Your task to perform on an android device: delete browsing data in the chrome app Image 0: 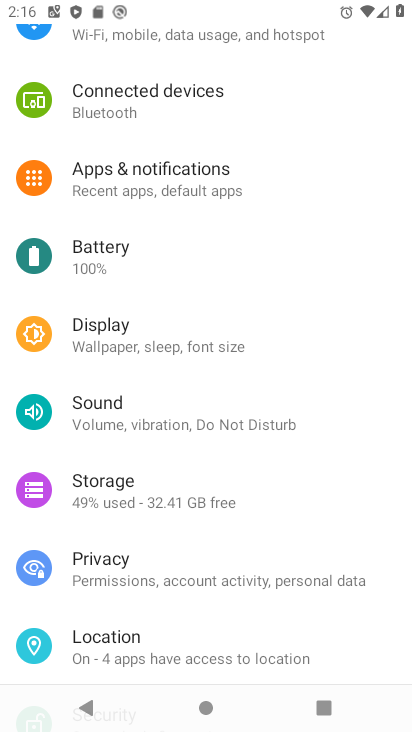
Step 0: press home button
Your task to perform on an android device: delete browsing data in the chrome app Image 1: 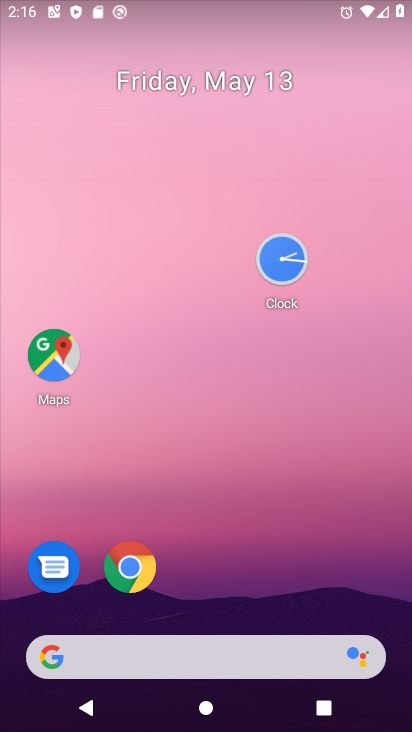
Step 1: click (144, 562)
Your task to perform on an android device: delete browsing data in the chrome app Image 2: 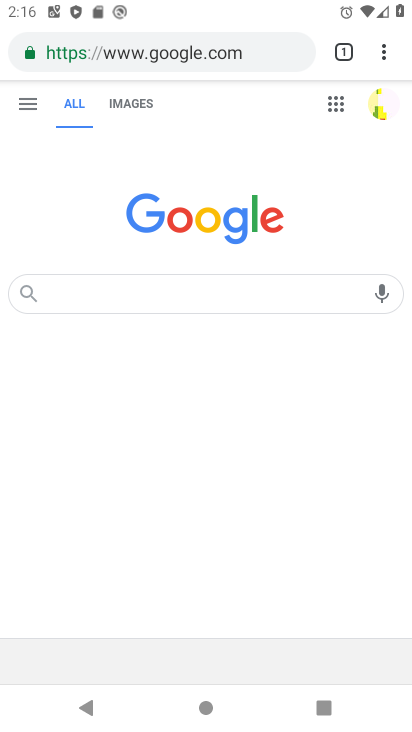
Step 2: click (384, 52)
Your task to perform on an android device: delete browsing data in the chrome app Image 3: 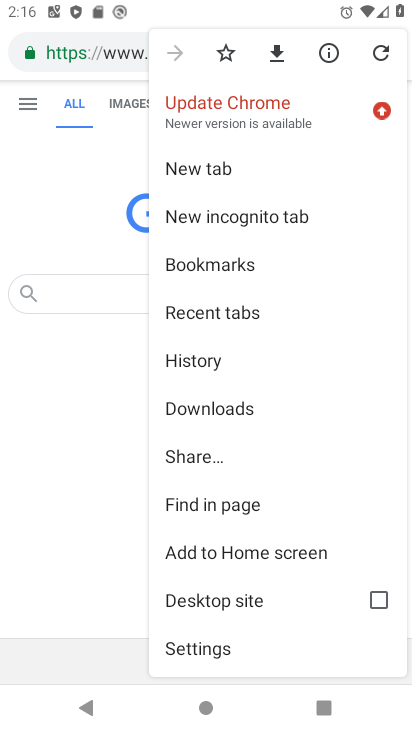
Step 3: click (256, 359)
Your task to perform on an android device: delete browsing data in the chrome app Image 4: 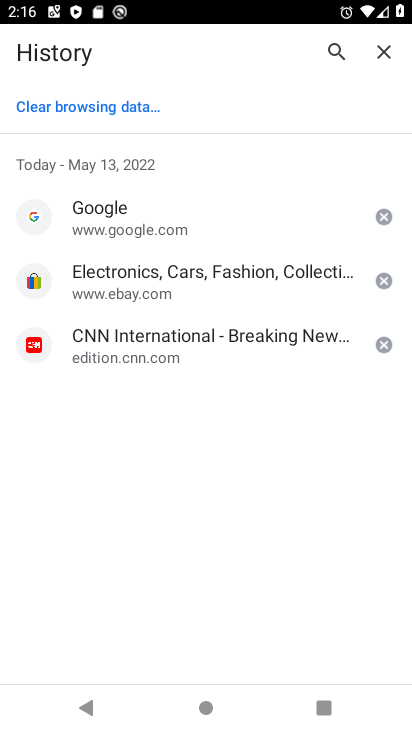
Step 4: click (116, 104)
Your task to perform on an android device: delete browsing data in the chrome app Image 5: 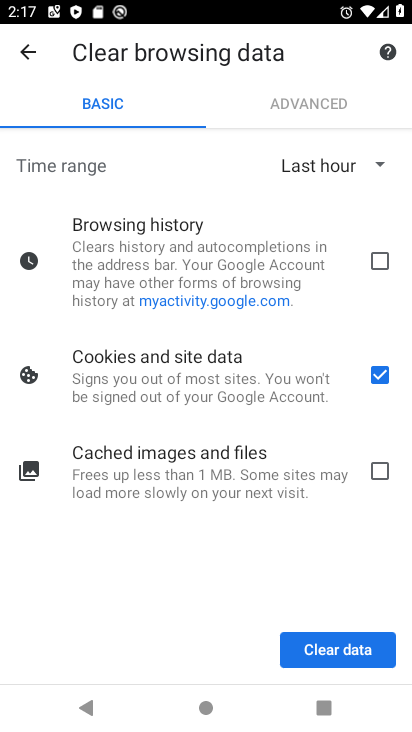
Step 5: click (386, 264)
Your task to perform on an android device: delete browsing data in the chrome app Image 6: 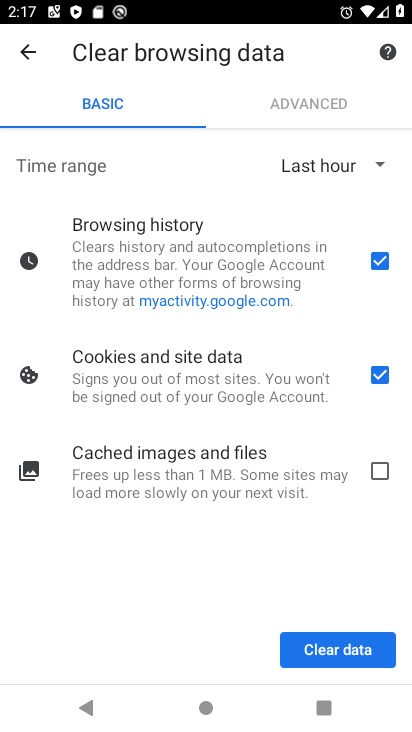
Step 6: click (383, 379)
Your task to perform on an android device: delete browsing data in the chrome app Image 7: 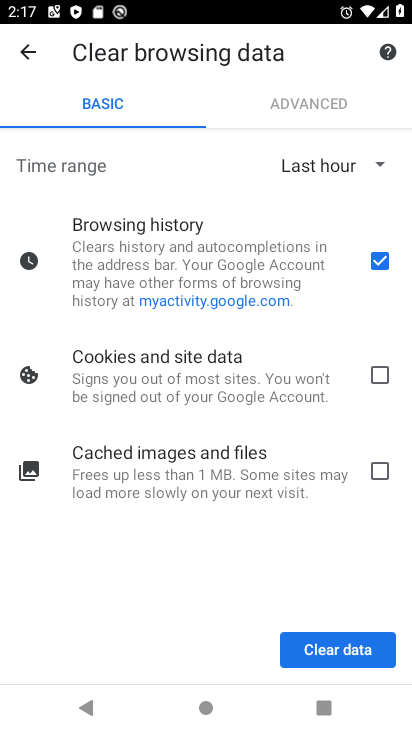
Step 7: click (372, 660)
Your task to perform on an android device: delete browsing data in the chrome app Image 8: 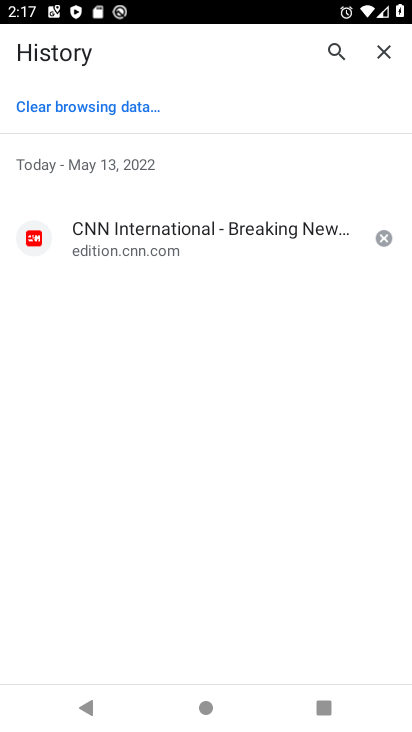
Step 8: task complete